Your task to perform on an android device: Check the news Image 0: 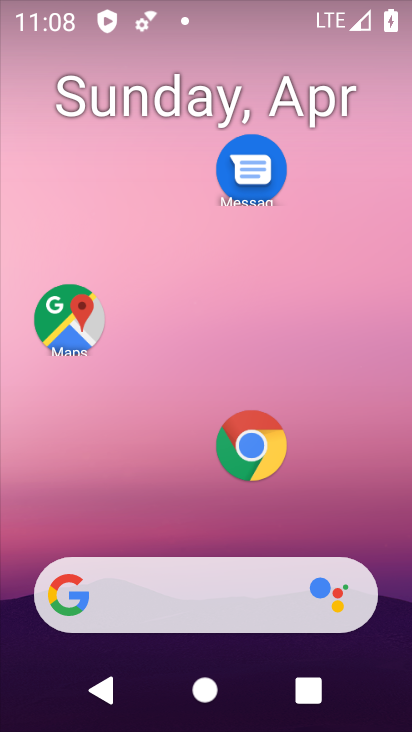
Step 0: drag from (42, 248) to (400, 480)
Your task to perform on an android device: Check the news Image 1: 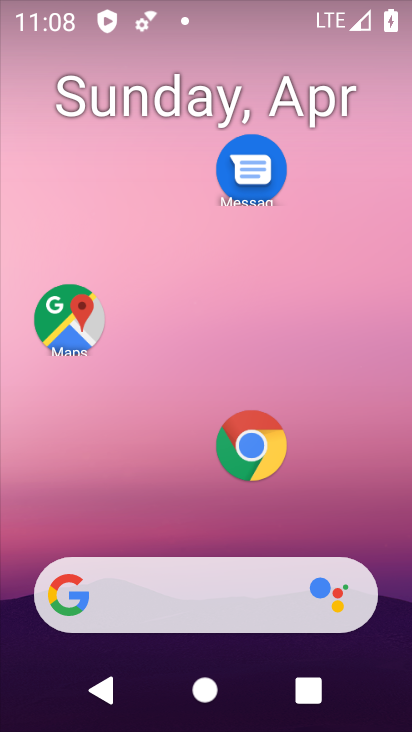
Step 1: task complete